Your task to perform on an android device: What's on my calendar today? Image 0: 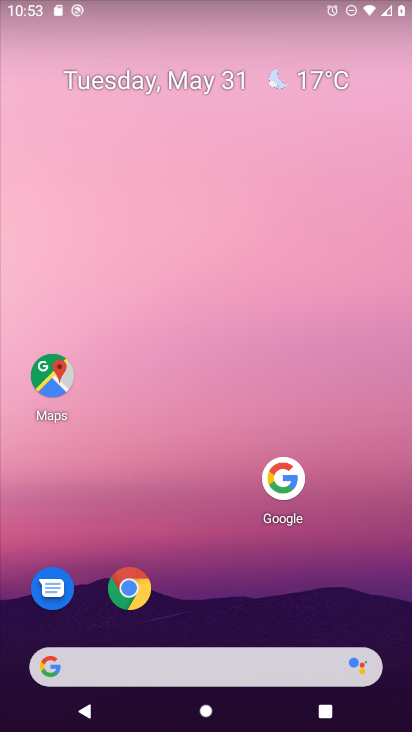
Step 0: drag from (221, 664) to (313, 195)
Your task to perform on an android device: What's on my calendar today? Image 1: 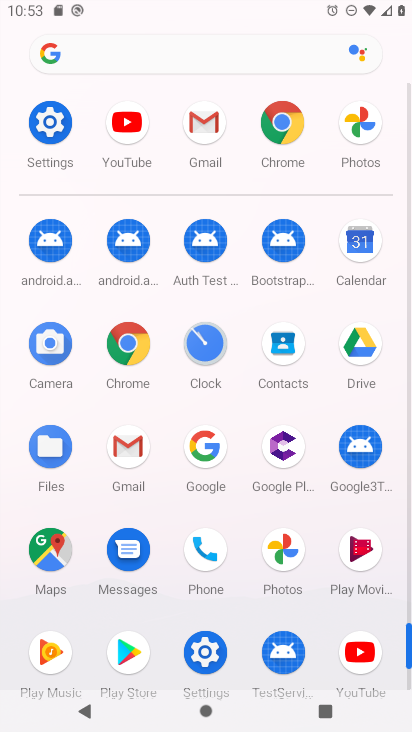
Step 1: click (357, 241)
Your task to perform on an android device: What's on my calendar today? Image 2: 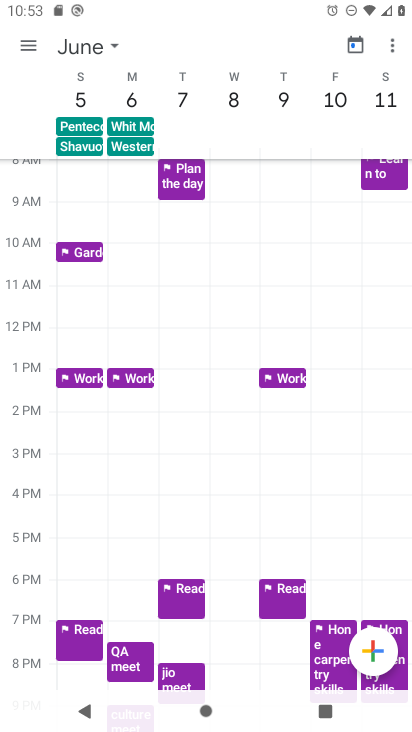
Step 2: click (83, 47)
Your task to perform on an android device: What's on my calendar today? Image 3: 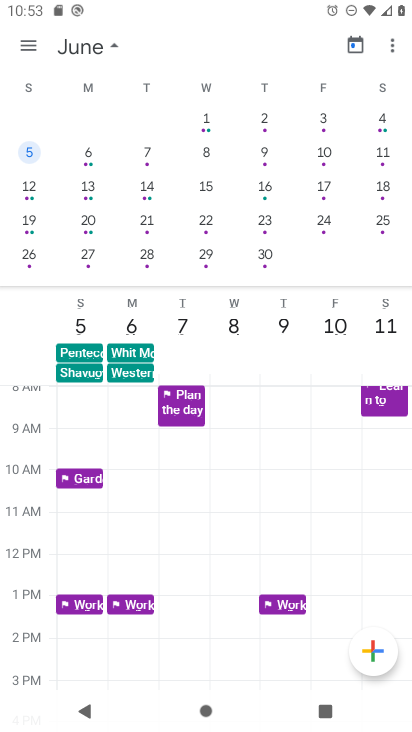
Step 3: drag from (92, 207) to (350, 210)
Your task to perform on an android device: What's on my calendar today? Image 4: 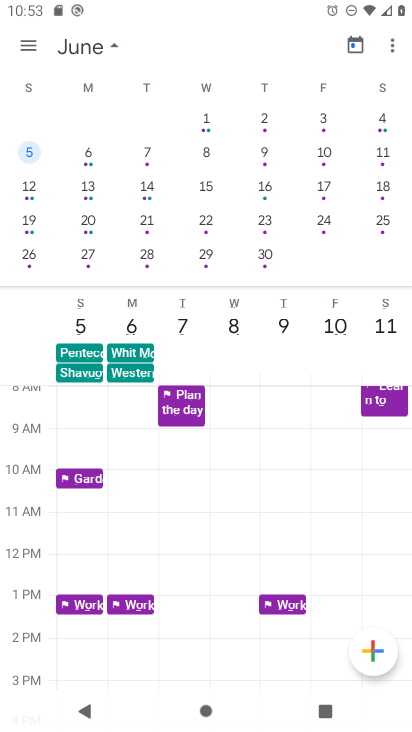
Step 4: drag from (59, 149) to (329, 191)
Your task to perform on an android device: What's on my calendar today? Image 5: 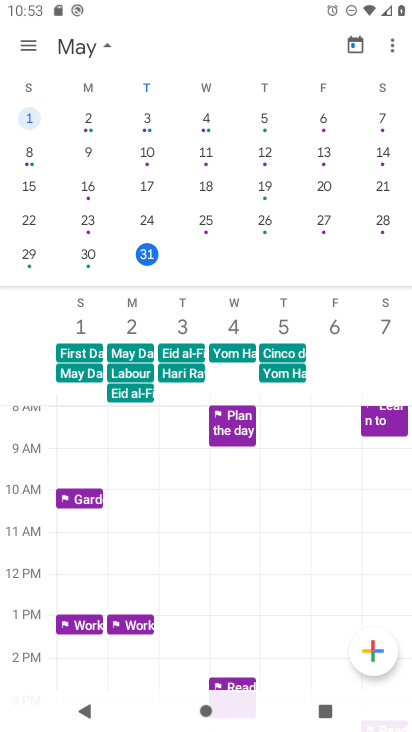
Step 5: click (151, 261)
Your task to perform on an android device: What's on my calendar today? Image 6: 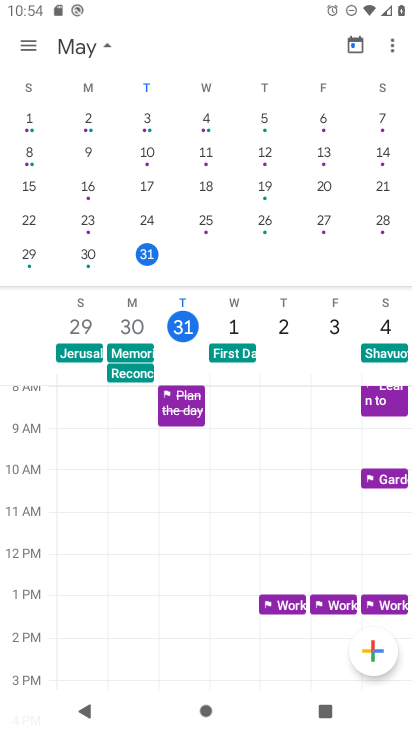
Step 6: click (35, 45)
Your task to perform on an android device: What's on my calendar today? Image 7: 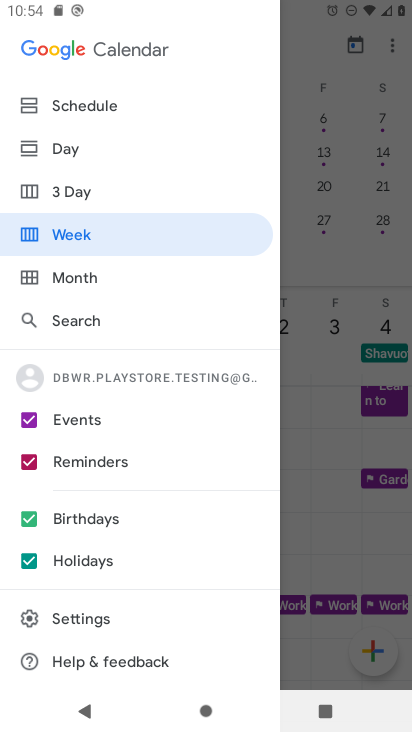
Step 7: click (76, 105)
Your task to perform on an android device: What's on my calendar today? Image 8: 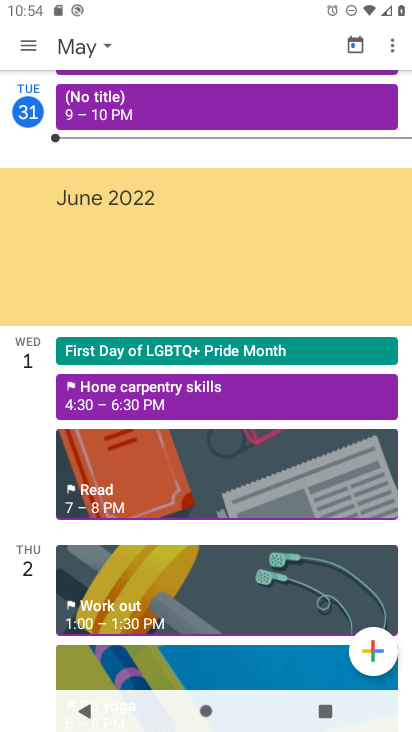
Step 8: task complete